Your task to perform on an android device: Open Google Chrome and click the shortcut for Amazon.com Image 0: 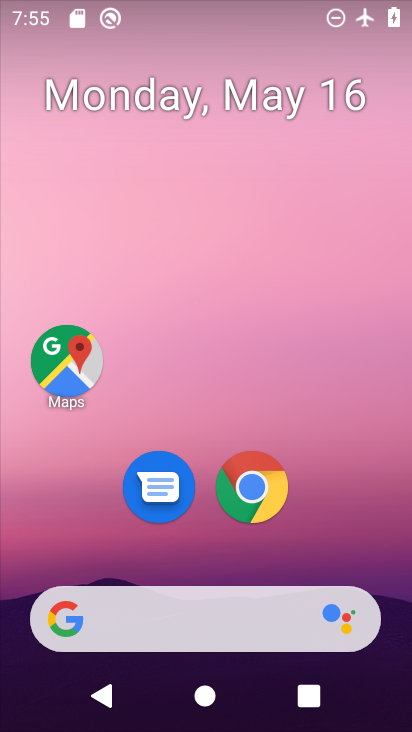
Step 0: click (265, 492)
Your task to perform on an android device: Open Google Chrome and click the shortcut for Amazon.com Image 1: 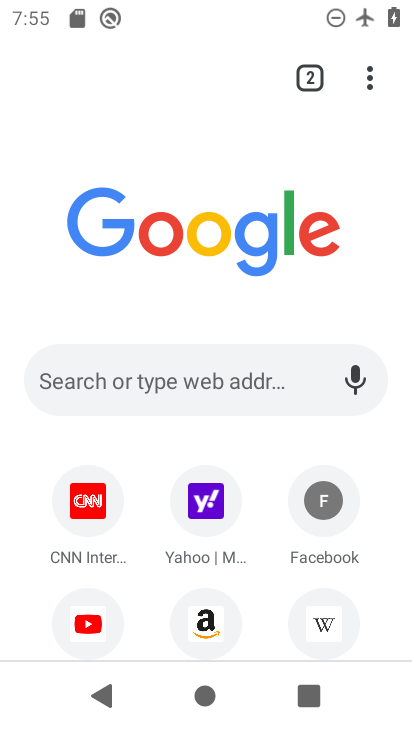
Step 1: click (196, 613)
Your task to perform on an android device: Open Google Chrome and click the shortcut for Amazon.com Image 2: 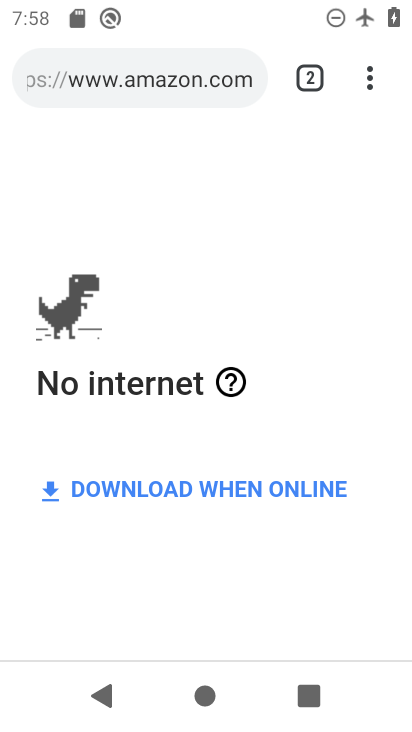
Step 2: task complete